Your task to perform on an android device: turn on bluetooth scan Image 0: 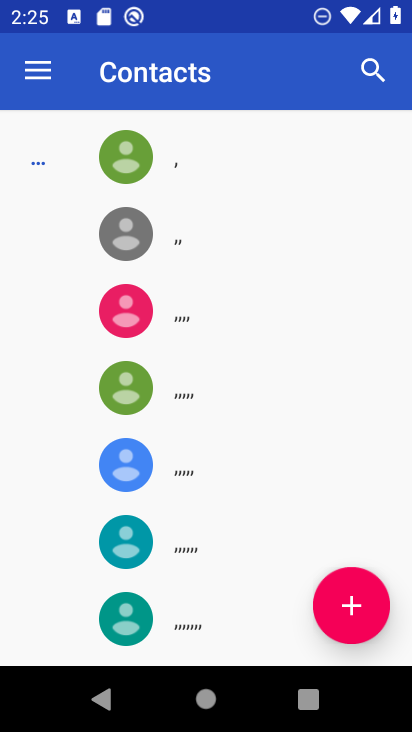
Step 0: press home button
Your task to perform on an android device: turn on bluetooth scan Image 1: 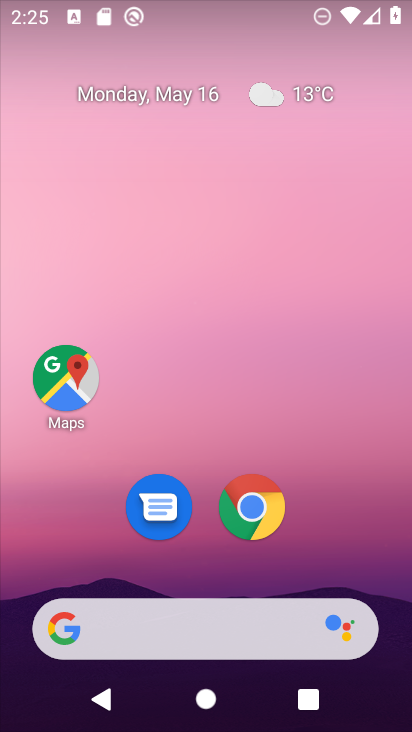
Step 1: drag from (285, 563) to (296, 283)
Your task to perform on an android device: turn on bluetooth scan Image 2: 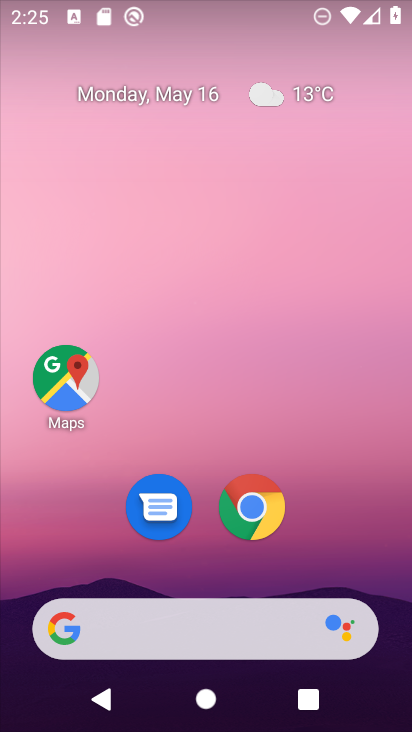
Step 2: drag from (227, 557) to (272, 262)
Your task to perform on an android device: turn on bluetooth scan Image 3: 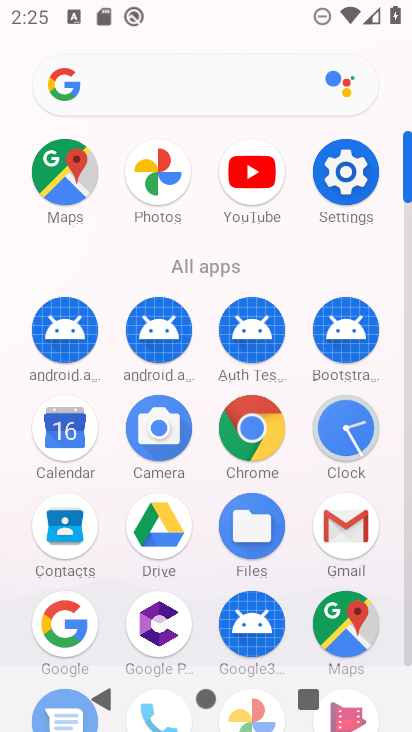
Step 3: click (358, 198)
Your task to perform on an android device: turn on bluetooth scan Image 4: 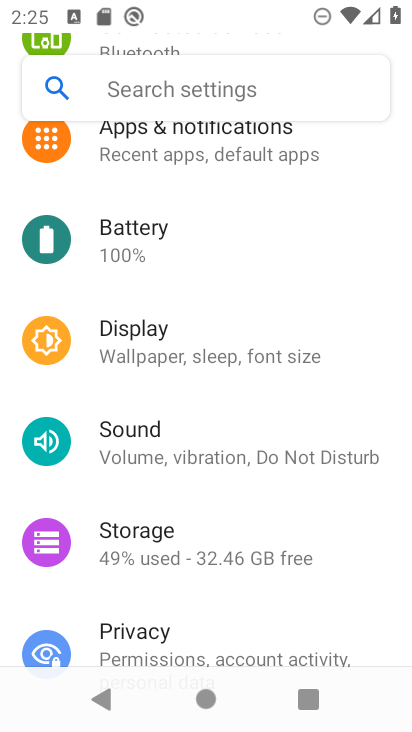
Step 4: drag from (213, 597) to (221, 722)
Your task to perform on an android device: turn on bluetooth scan Image 5: 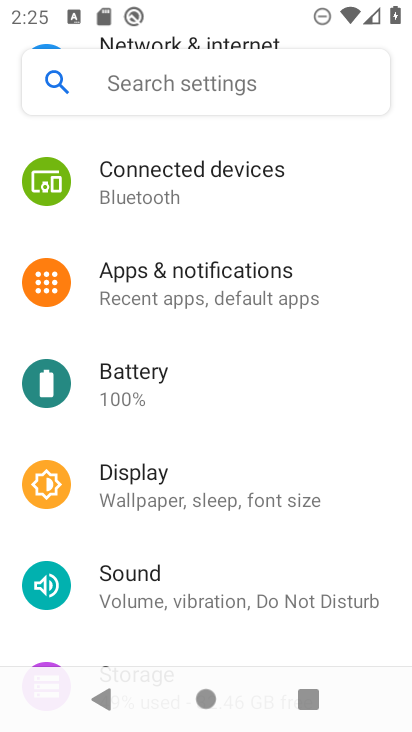
Step 5: drag from (257, 362) to (224, 694)
Your task to perform on an android device: turn on bluetooth scan Image 6: 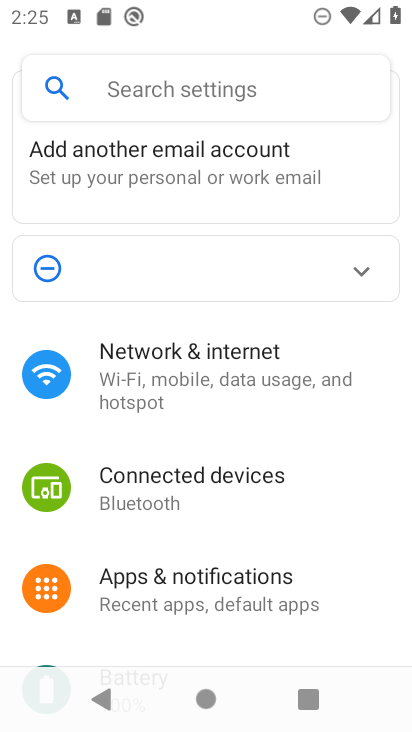
Step 6: drag from (236, 539) to (257, 341)
Your task to perform on an android device: turn on bluetooth scan Image 7: 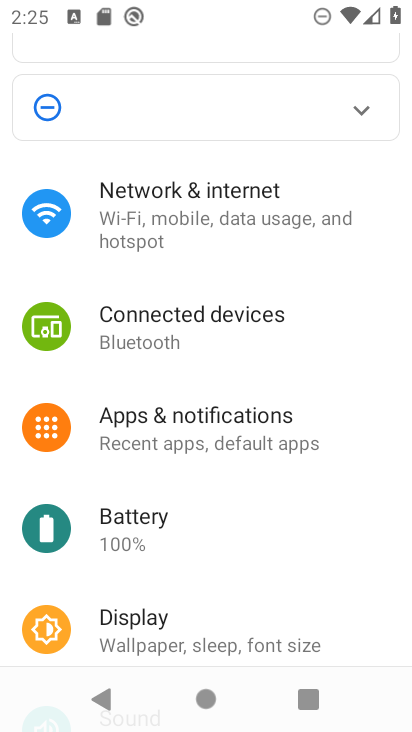
Step 7: drag from (187, 574) to (300, 196)
Your task to perform on an android device: turn on bluetooth scan Image 8: 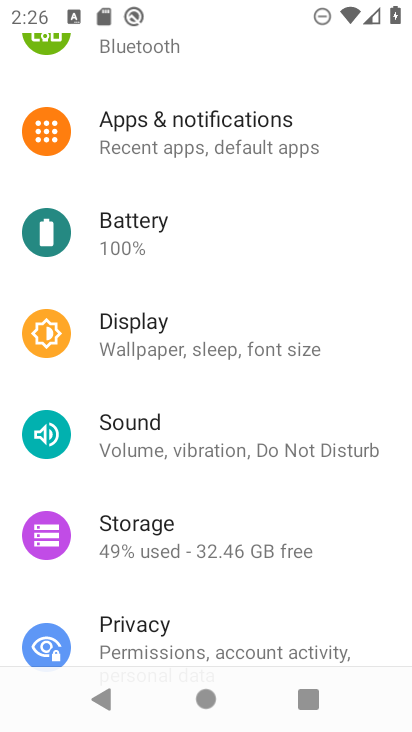
Step 8: drag from (201, 613) to (294, 232)
Your task to perform on an android device: turn on bluetooth scan Image 9: 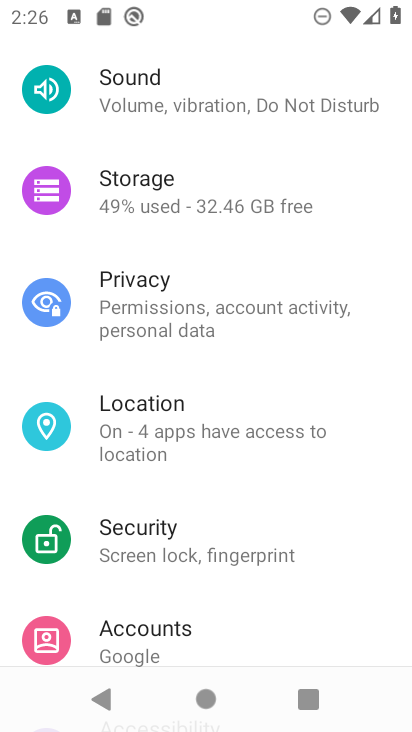
Step 9: drag from (209, 495) to (255, 300)
Your task to perform on an android device: turn on bluetooth scan Image 10: 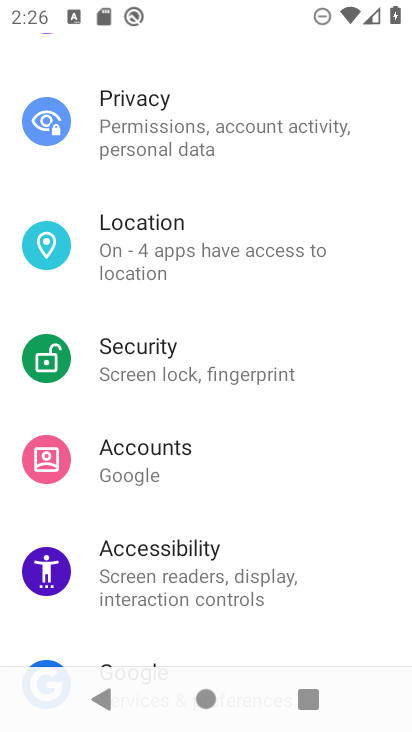
Step 10: drag from (223, 508) to (256, 365)
Your task to perform on an android device: turn on bluetooth scan Image 11: 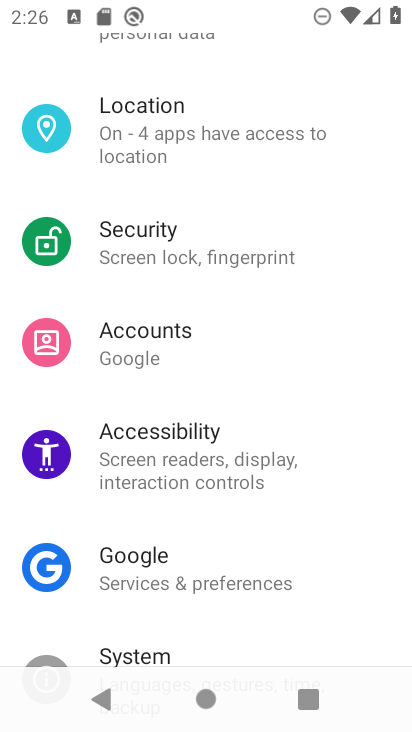
Step 11: drag from (285, 330) to (248, 581)
Your task to perform on an android device: turn on bluetooth scan Image 12: 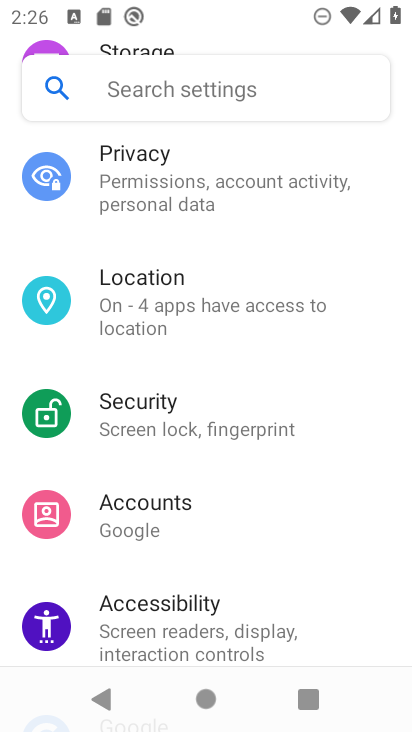
Step 12: click (255, 272)
Your task to perform on an android device: turn on bluetooth scan Image 13: 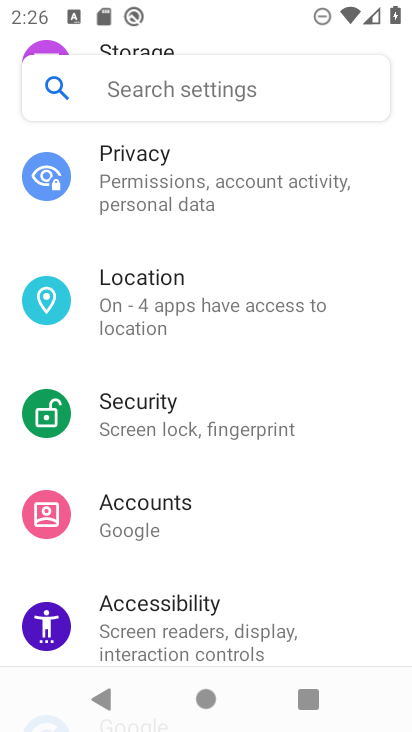
Step 13: click (244, 325)
Your task to perform on an android device: turn on bluetooth scan Image 14: 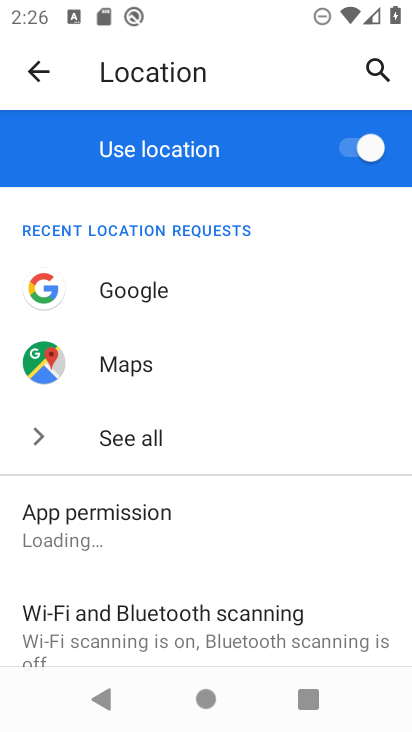
Step 14: click (192, 620)
Your task to perform on an android device: turn on bluetooth scan Image 15: 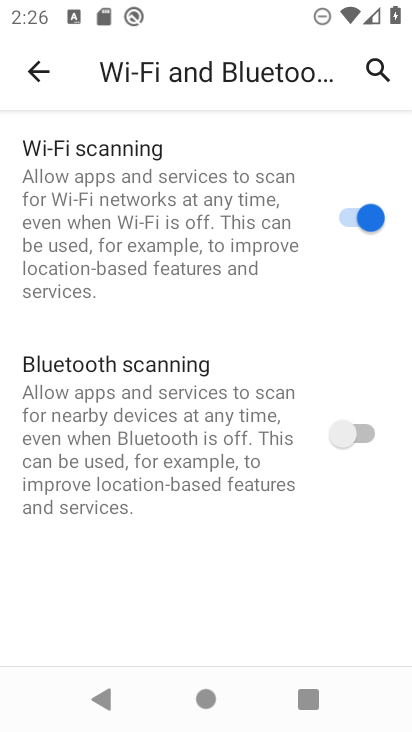
Step 15: click (352, 437)
Your task to perform on an android device: turn on bluetooth scan Image 16: 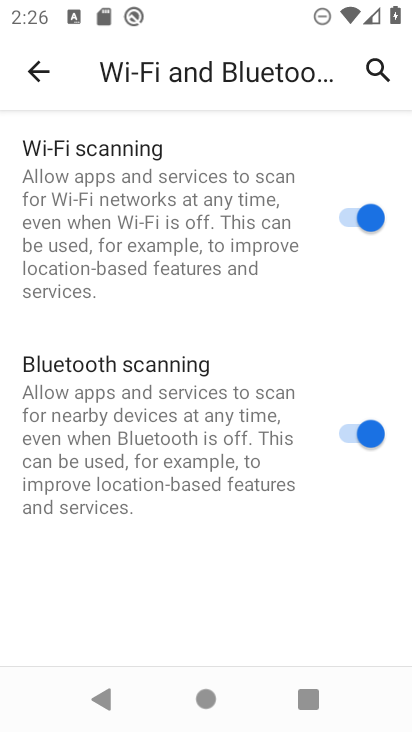
Step 16: task complete